Your task to perform on an android device: turn off notifications settings in the gmail app Image 0: 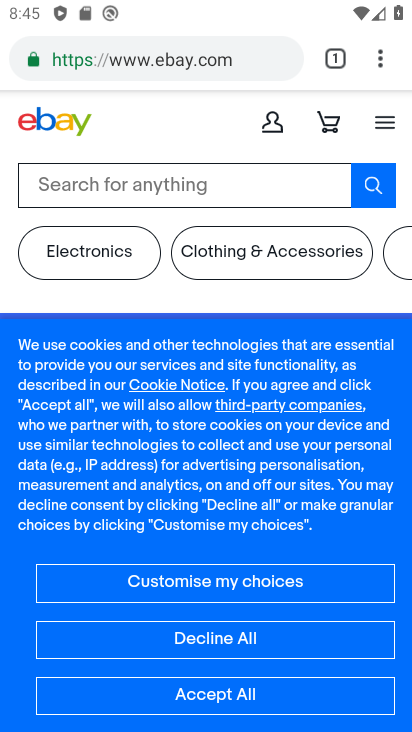
Step 0: press home button
Your task to perform on an android device: turn off notifications settings in the gmail app Image 1: 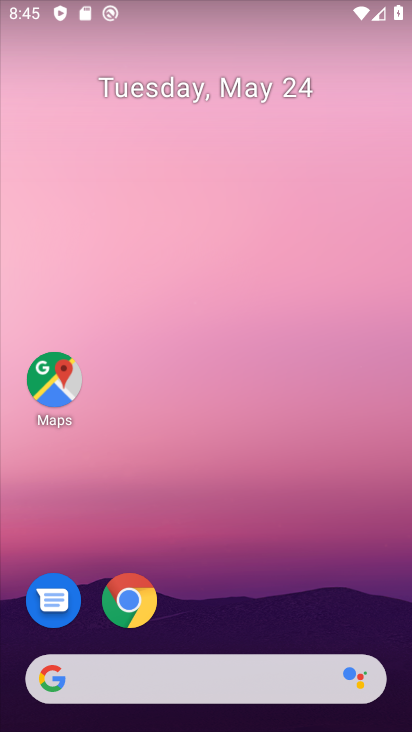
Step 1: drag from (185, 629) to (229, 272)
Your task to perform on an android device: turn off notifications settings in the gmail app Image 2: 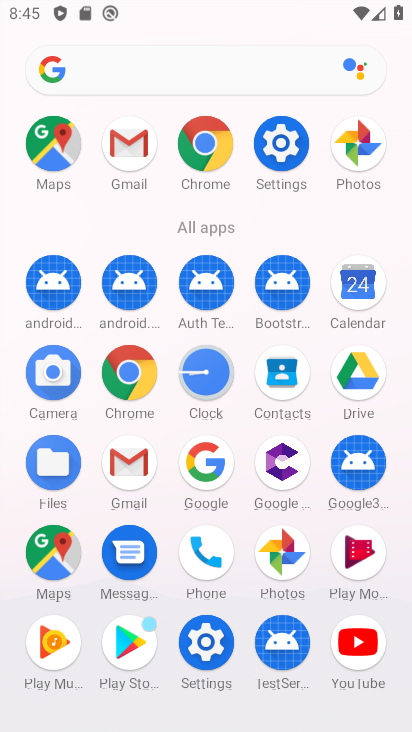
Step 2: click (128, 144)
Your task to perform on an android device: turn off notifications settings in the gmail app Image 3: 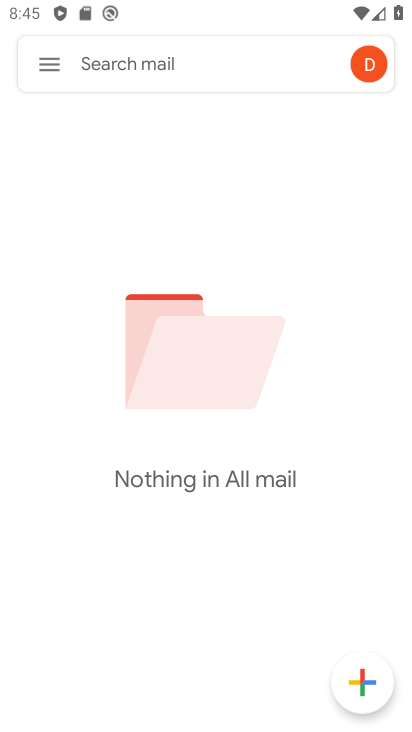
Step 3: click (66, 55)
Your task to perform on an android device: turn off notifications settings in the gmail app Image 4: 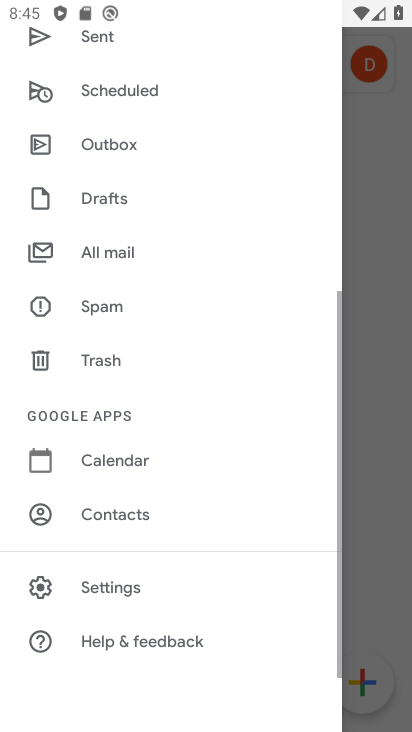
Step 4: click (66, 55)
Your task to perform on an android device: turn off notifications settings in the gmail app Image 5: 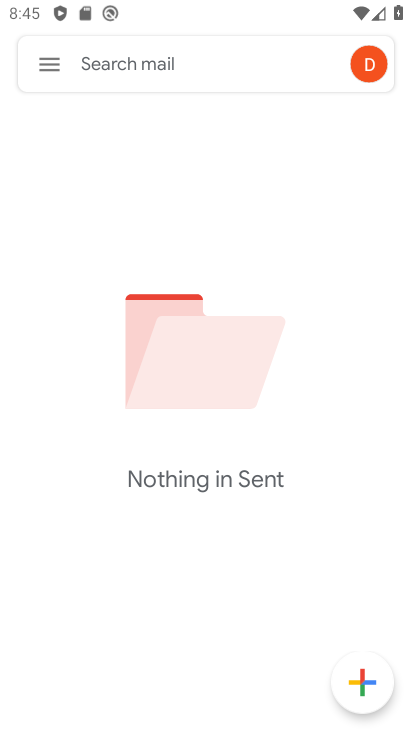
Step 5: click (66, 55)
Your task to perform on an android device: turn off notifications settings in the gmail app Image 6: 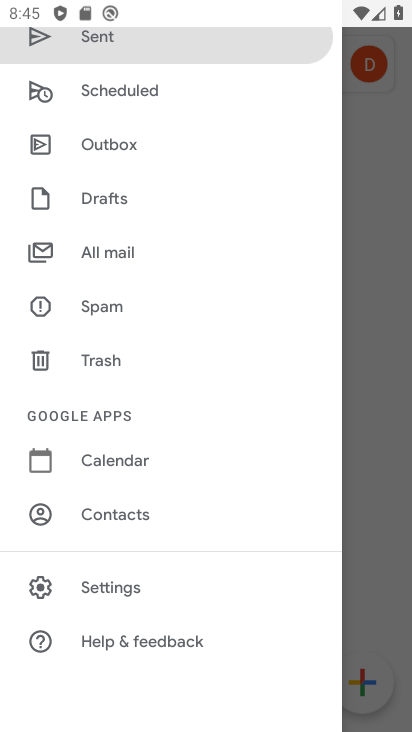
Step 6: click (123, 602)
Your task to perform on an android device: turn off notifications settings in the gmail app Image 7: 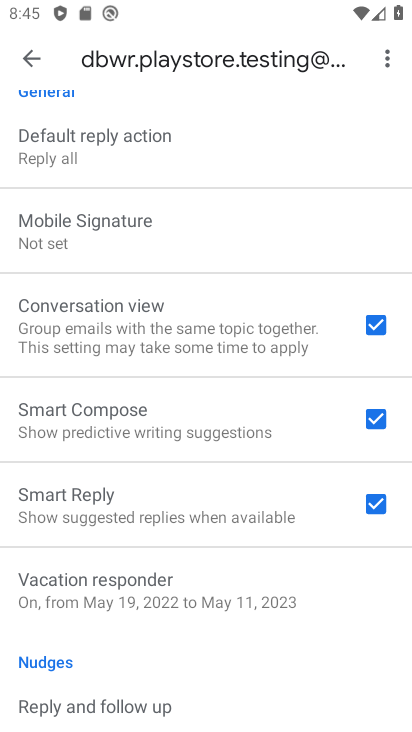
Step 7: drag from (148, 367) to (247, 661)
Your task to perform on an android device: turn off notifications settings in the gmail app Image 8: 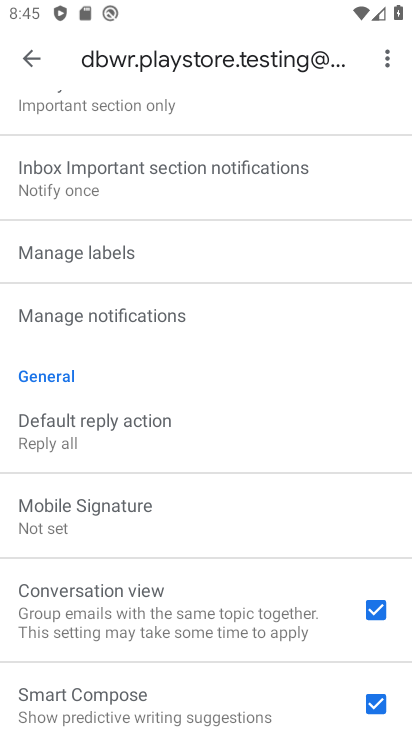
Step 8: click (155, 338)
Your task to perform on an android device: turn off notifications settings in the gmail app Image 9: 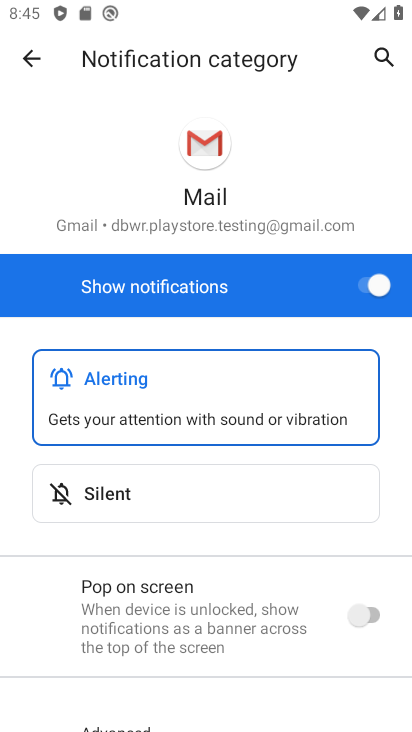
Step 9: click (385, 286)
Your task to perform on an android device: turn off notifications settings in the gmail app Image 10: 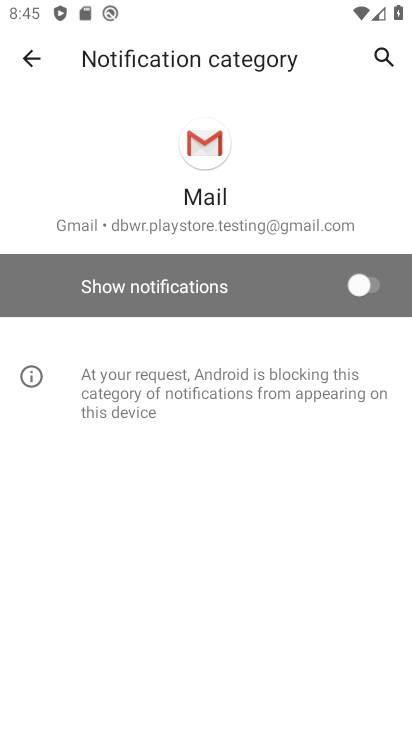
Step 10: task complete